Your task to perform on an android device: Turn off the flashlight Image 0: 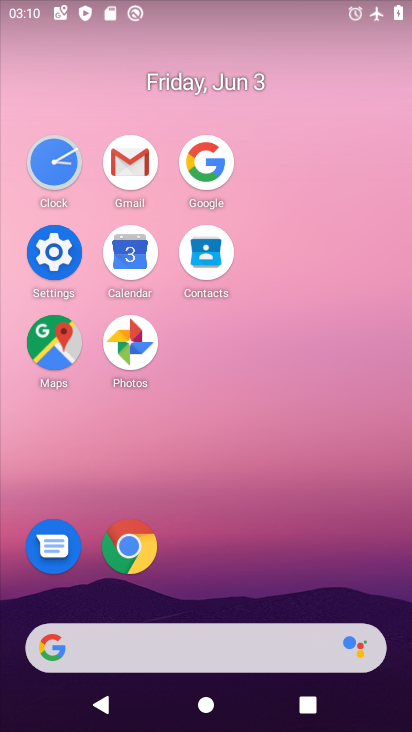
Step 0: drag from (288, 9) to (282, 303)
Your task to perform on an android device: Turn off the flashlight Image 1: 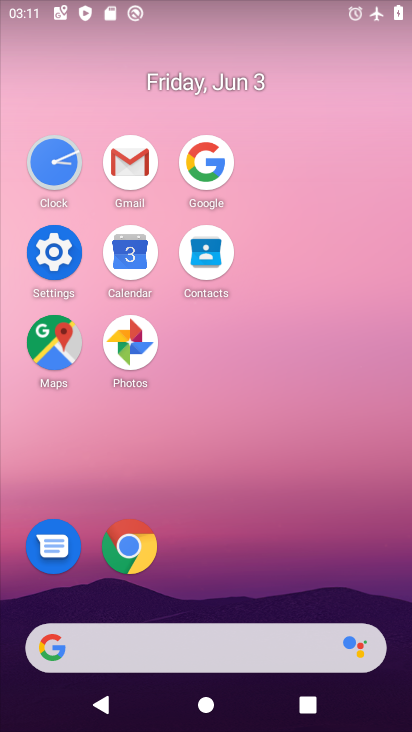
Step 1: task complete